Your task to perform on an android device: Search for seafood restaurants on Google Maps Image 0: 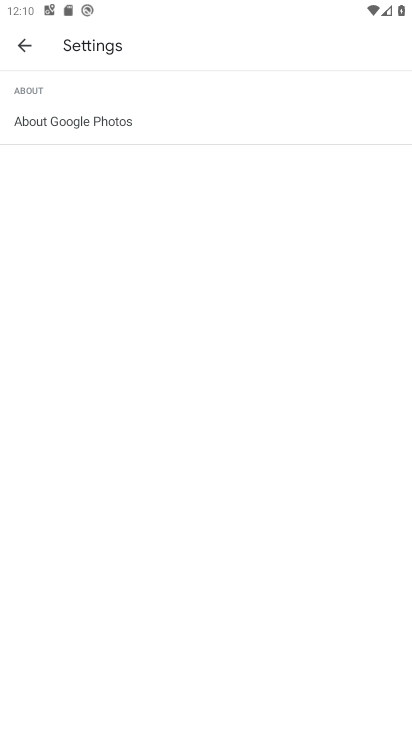
Step 0: click (13, 43)
Your task to perform on an android device: Search for seafood restaurants on Google Maps Image 1: 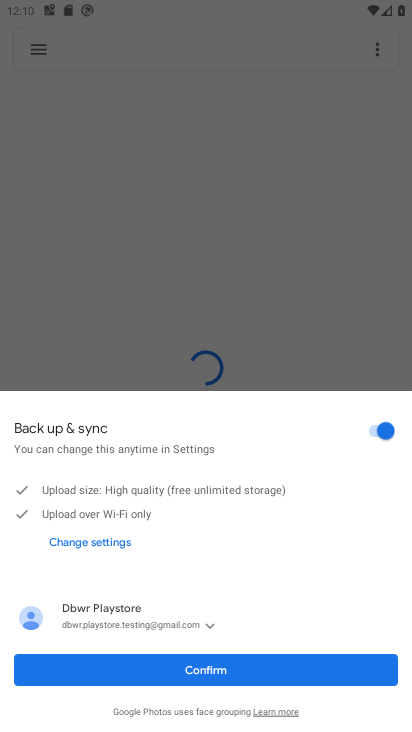
Step 1: click (164, 44)
Your task to perform on an android device: Search for seafood restaurants on Google Maps Image 2: 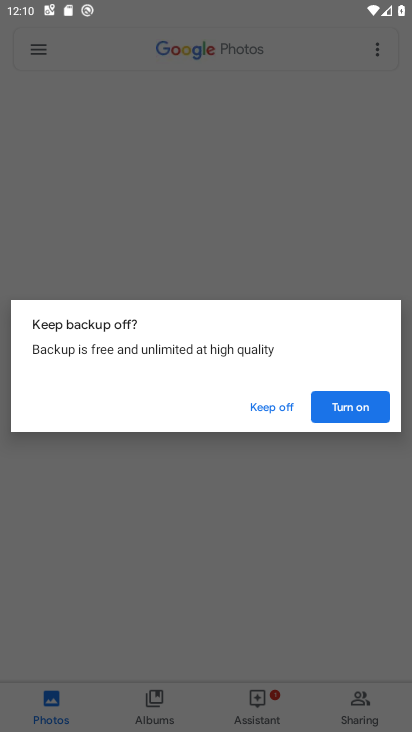
Step 2: click (346, 402)
Your task to perform on an android device: Search for seafood restaurants on Google Maps Image 3: 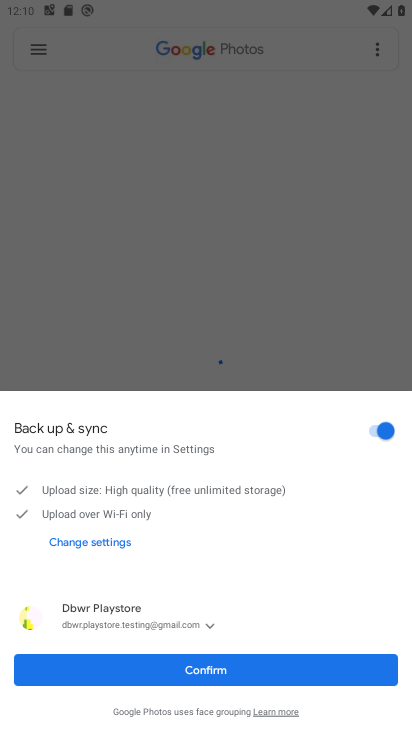
Step 3: press home button
Your task to perform on an android device: Search for seafood restaurants on Google Maps Image 4: 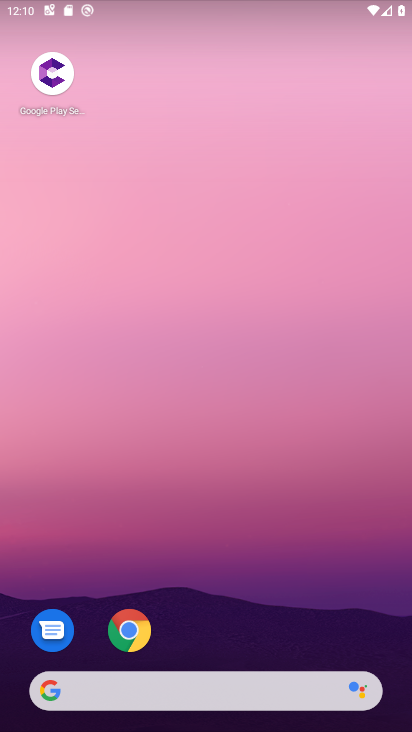
Step 4: drag from (241, 573) to (286, 143)
Your task to perform on an android device: Search for seafood restaurants on Google Maps Image 5: 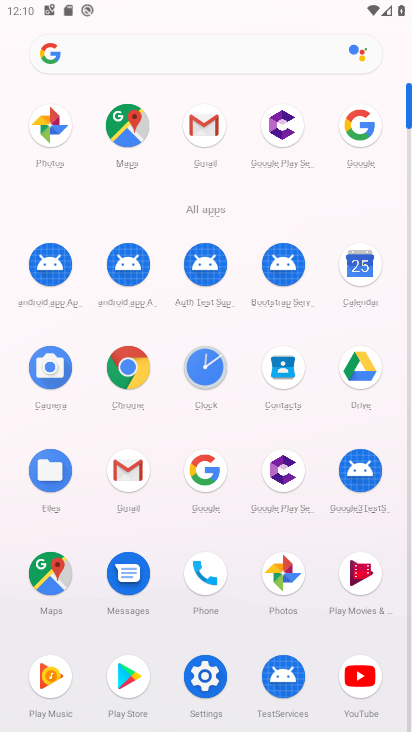
Step 5: click (39, 575)
Your task to perform on an android device: Search for seafood restaurants on Google Maps Image 6: 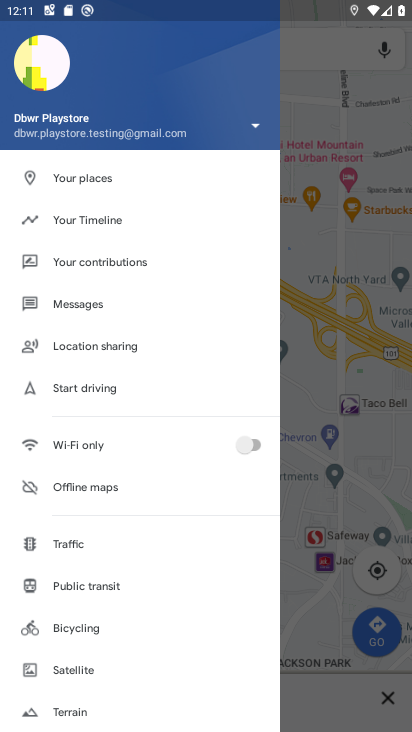
Step 6: drag from (162, 681) to (216, 184)
Your task to perform on an android device: Search for seafood restaurants on Google Maps Image 7: 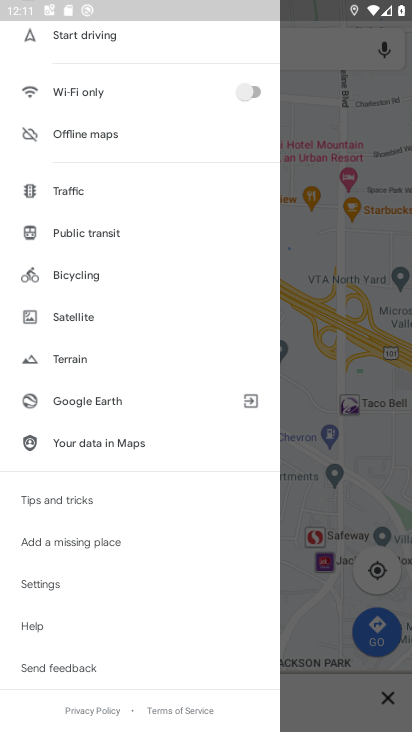
Step 7: click (324, 49)
Your task to perform on an android device: Search for seafood restaurants on Google Maps Image 8: 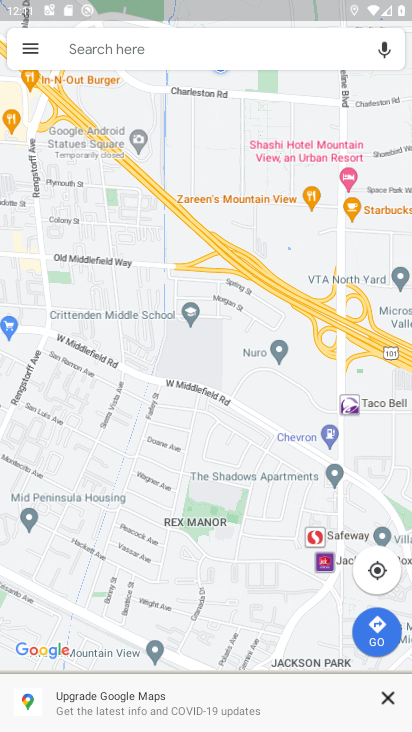
Step 8: click (306, 48)
Your task to perform on an android device: Search for seafood restaurants on Google Maps Image 9: 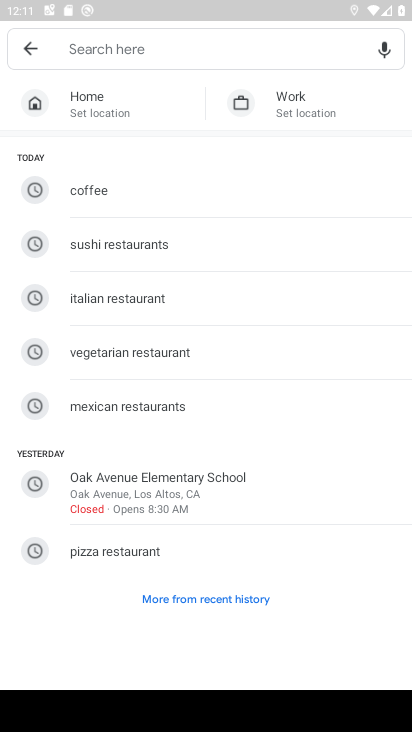
Step 9: type "seafood restaurants"
Your task to perform on an android device: Search for seafood restaurants on Google Maps Image 10: 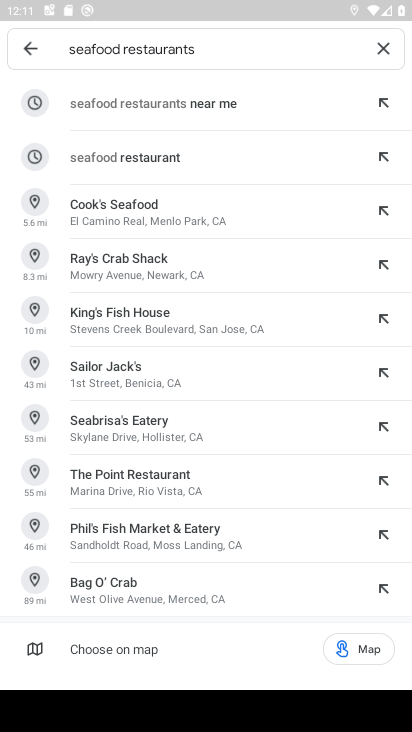
Step 10: click (173, 165)
Your task to perform on an android device: Search for seafood restaurants on Google Maps Image 11: 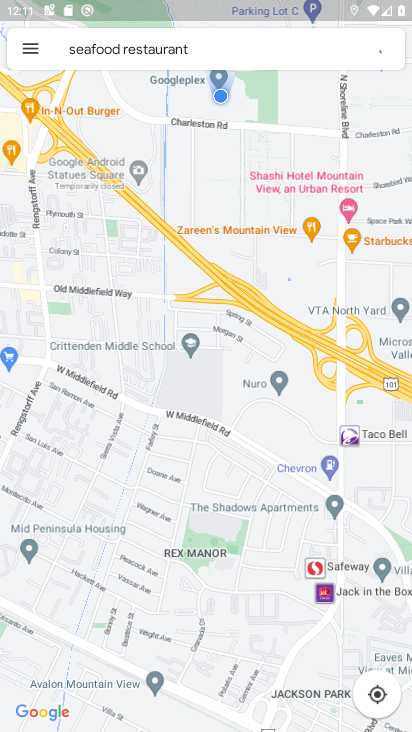
Step 11: task complete